Your task to perform on an android device: Show me productivity apps on the Play Store Image 0: 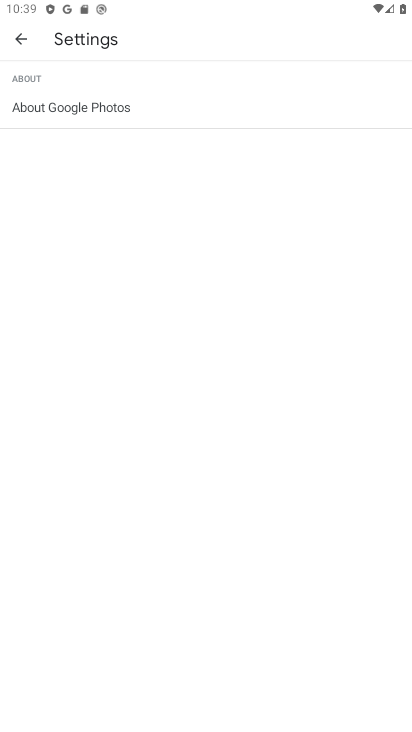
Step 0: press home button
Your task to perform on an android device: Show me productivity apps on the Play Store Image 1: 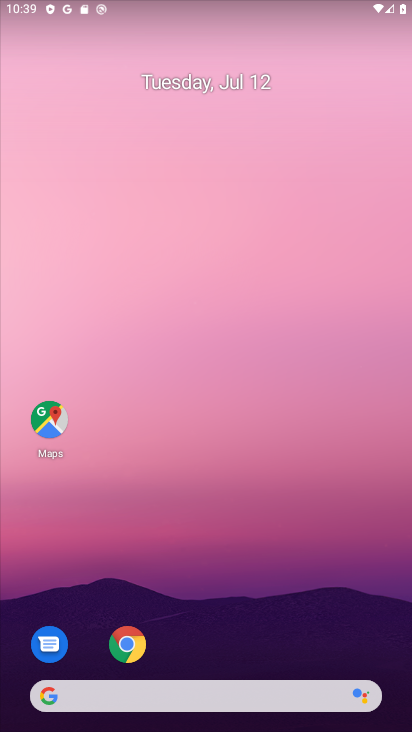
Step 1: drag from (226, 673) to (323, 53)
Your task to perform on an android device: Show me productivity apps on the Play Store Image 2: 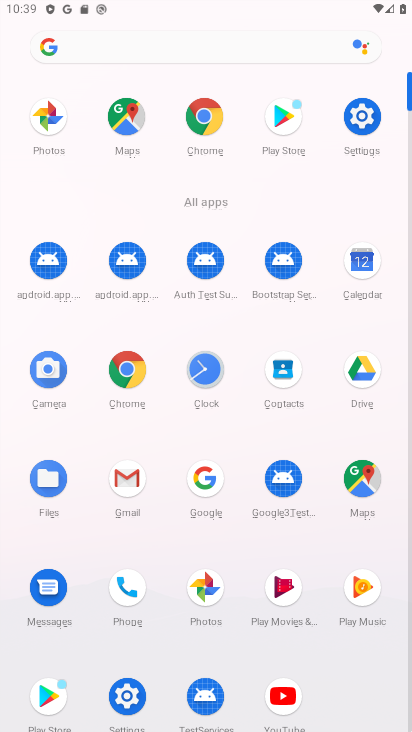
Step 2: click (42, 704)
Your task to perform on an android device: Show me productivity apps on the Play Store Image 3: 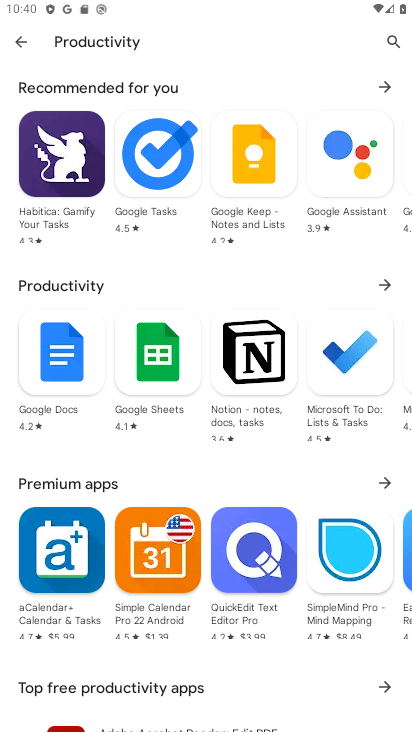
Step 3: task complete